Your task to perform on an android device: What's the weather going to be this weekend? Image 0: 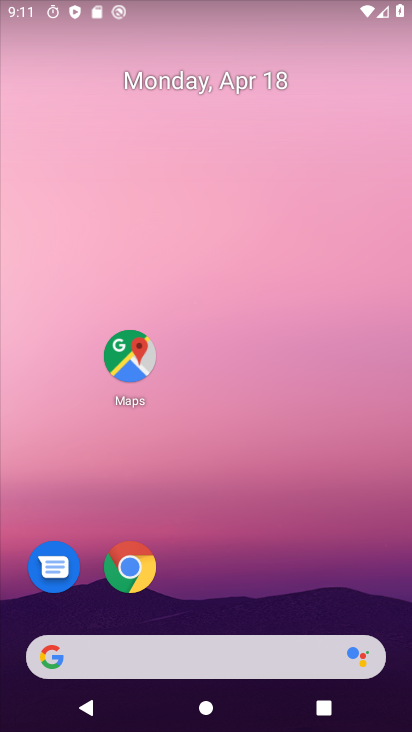
Step 0: click (293, 253)
Your task to perform on an android device: What's the weather going to be this weekend? Image 1: 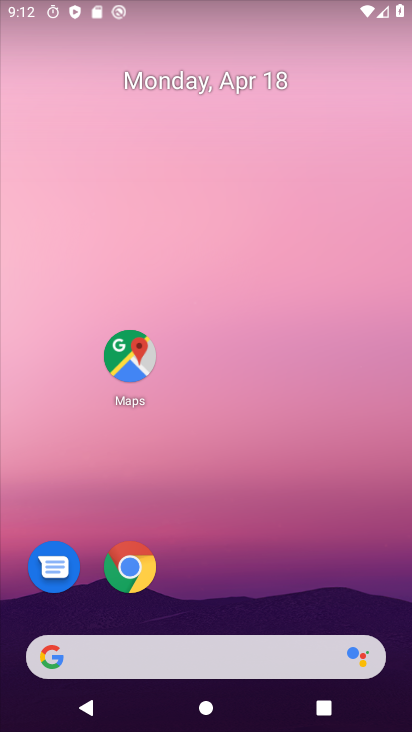
Step 1: click (215, 651)
Your task to perform on an android device: What's the weather going to be this weekend? Image 2: 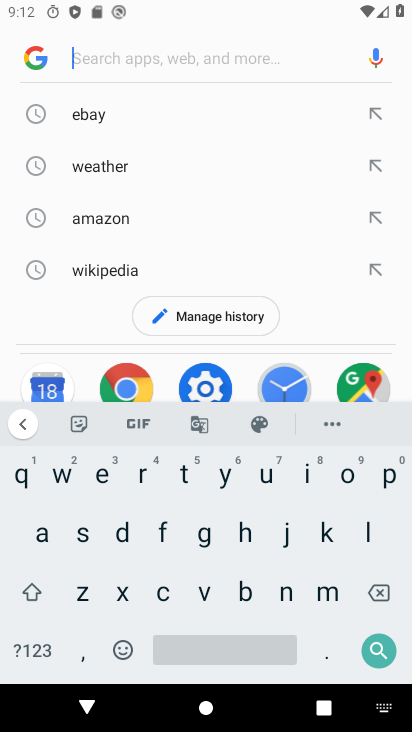
Step 2: click (122, 169)
Your task to perform on an android device: What's the weather going to be this weekend? Image 3: 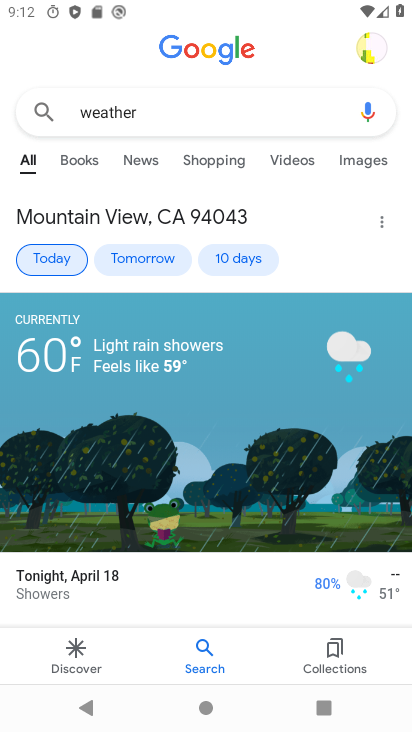
Step 3: click (245, 260)
Your task to perform on an android device: What's the weather going to be this weekend? Image 4: 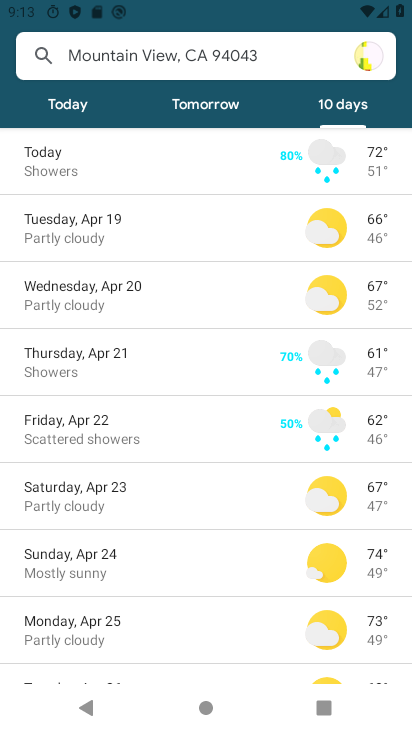
Step 4: task complete